Your task to perform on an android device: open app "Move to iOS" (install if not already installed) Image 0: 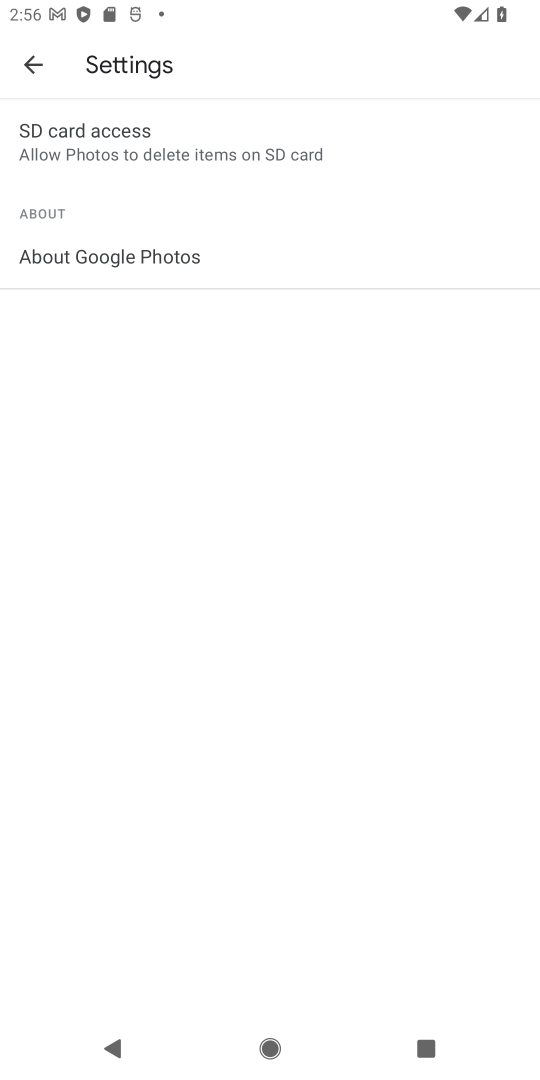
Step 0: press home button
Your task to perform on an android device: open app "Move to iOS" (install if not already installed) Image 1: 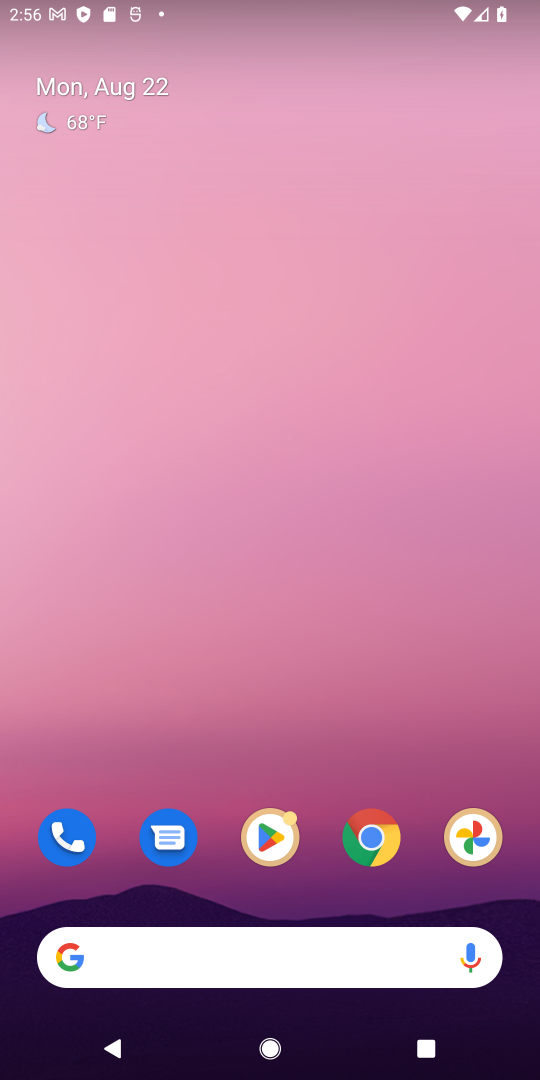
Step 1: drag from (504, 886) to (223, 57)
Your task to perform on an android device: open app "Move to iOS" (install if not already installed) Image 2: 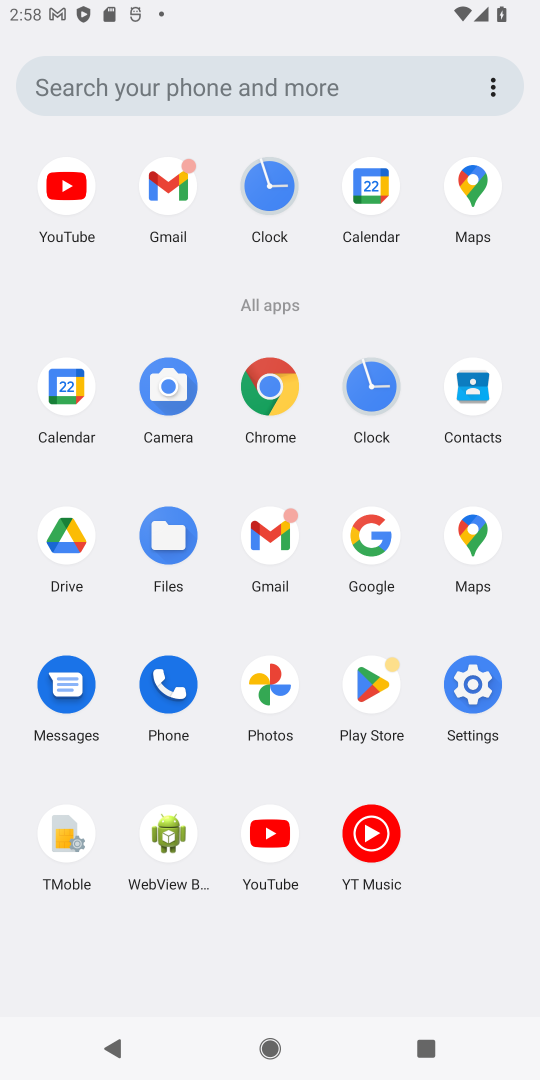
Step 2: click (369, 707)
Your task to perform on an android device: open app "Move to iOS" (install if not already installed) Image 3: 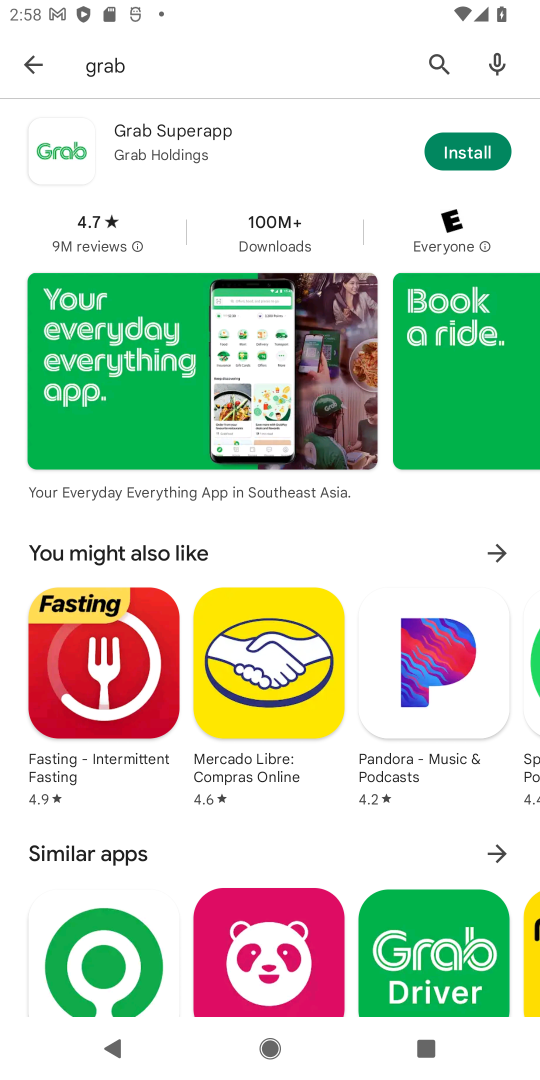
Step 3: press back button
Your task to perform on an android device: open app "Move to iOS" (install if not already installed) Image 4: 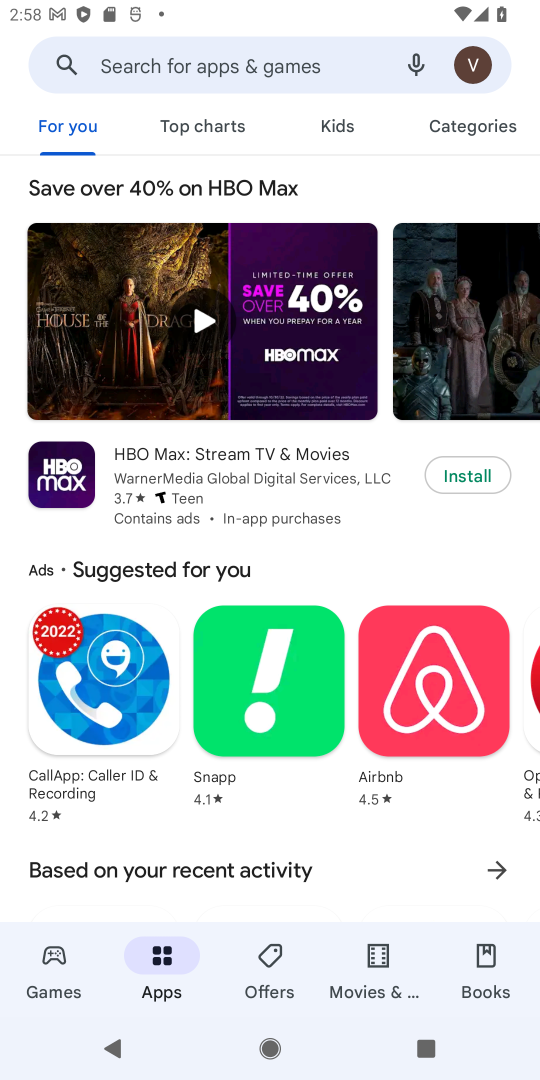
Step 4: click (180, 68)
Your task to perform on an android device: open app "Move to iOS" (install if not already installed) Image 5: 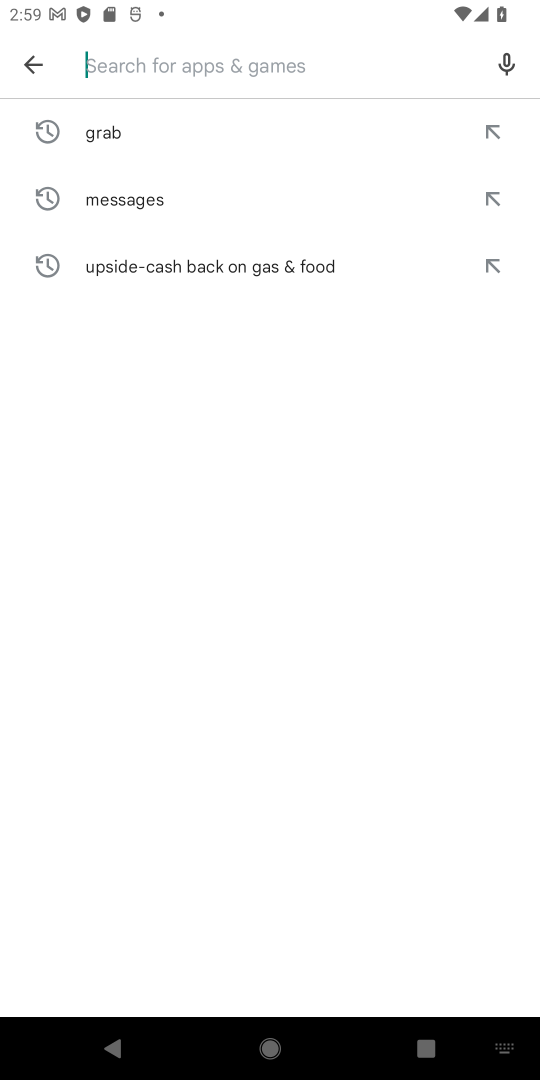
Step 5: type "Move to iOS"
Your task to perform on an android device: open app "Move to iOS" (install if not already installed) Image 6: 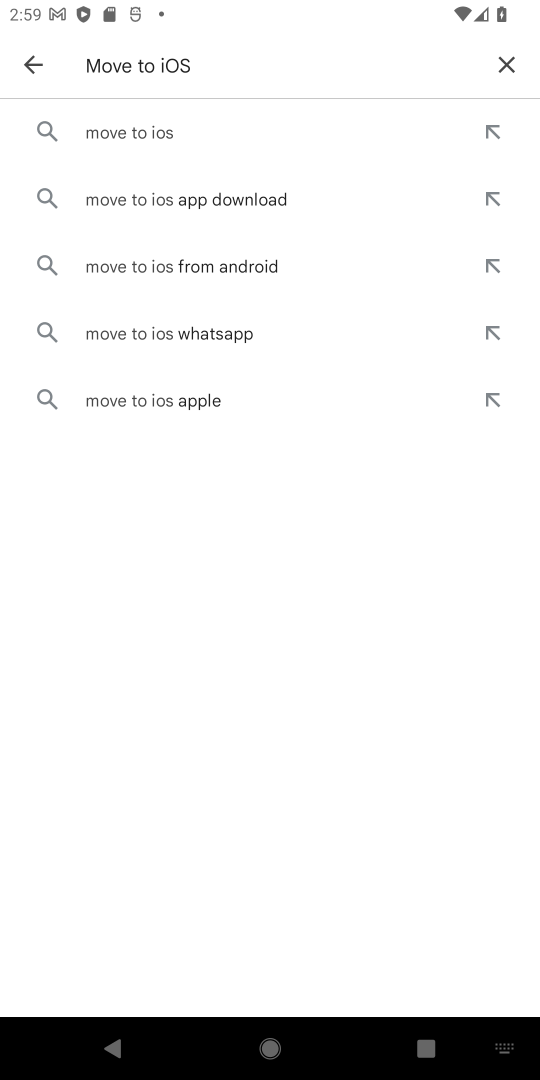
Step 6: click (171, 137)
Your task to perform on an android device: open app "Move to iOS" (install if not already installed) Image 7: 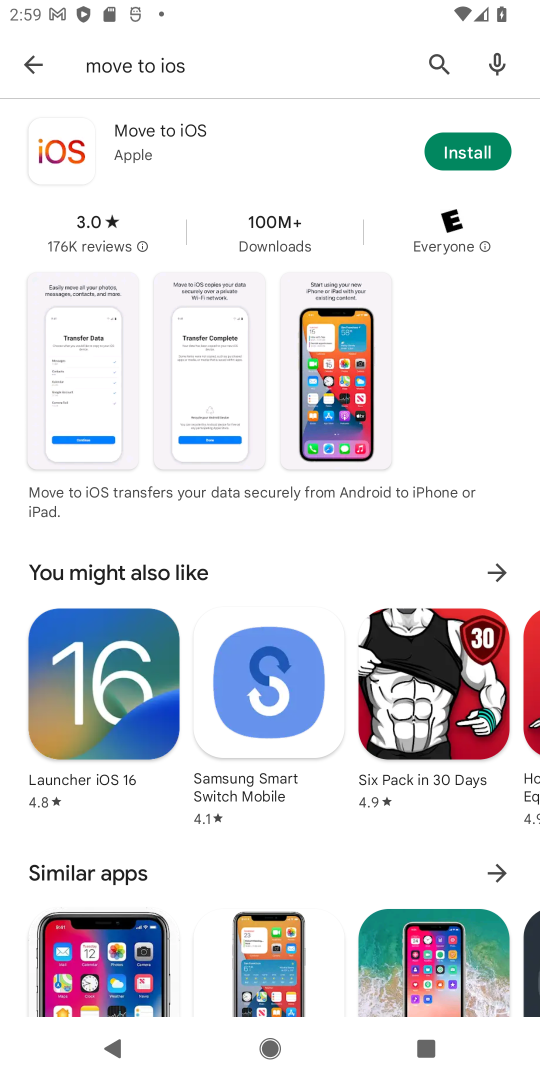
Step 7: task complete